Your task to perform on an android device: open a bookmark in the chrome app Image 0: 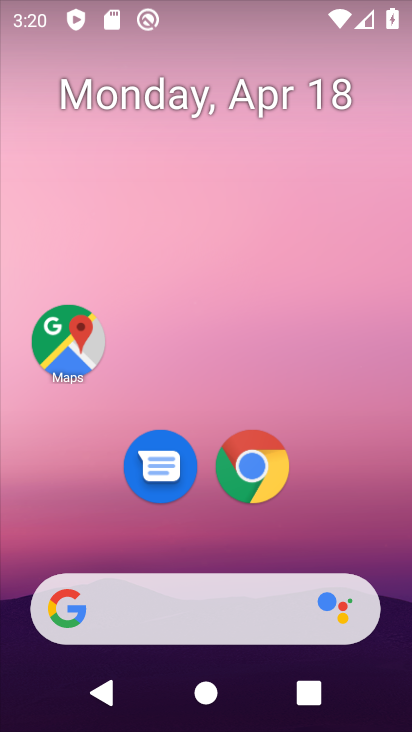
Step 0: click (254, 477)
Your task to perform on an android device: open a bookmark in the chrome app Image 1: 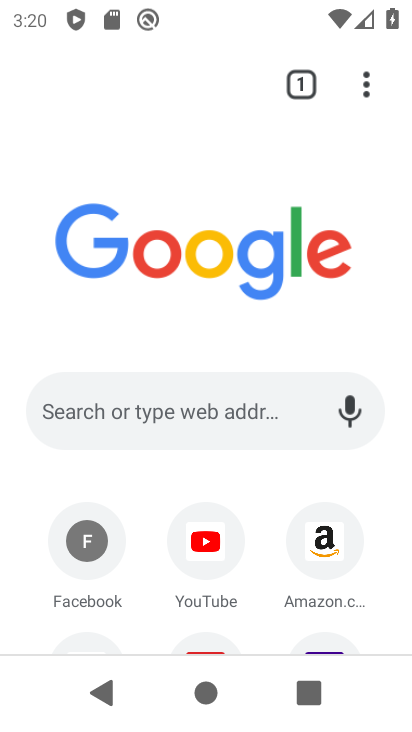
Step 1: click (369, 97)
Your task to perform on an android device: open a bookmark in the chrome app Image 2: 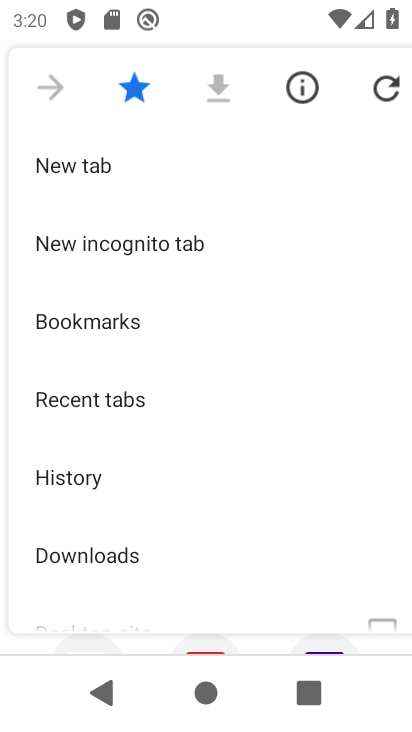
Step 2: click (168, 318)
Your task to perform on an android device: open a bookmark in the chrome app Image 3: 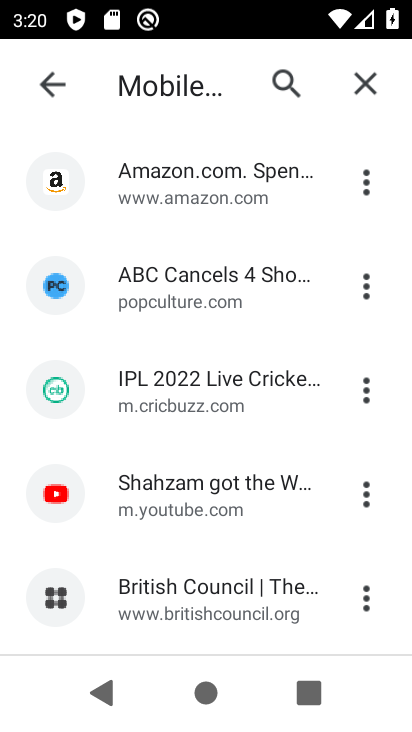
Step 3: click (206, 161)
Your task to perform on an android device: open a bookmark in the chrome app Image 4: 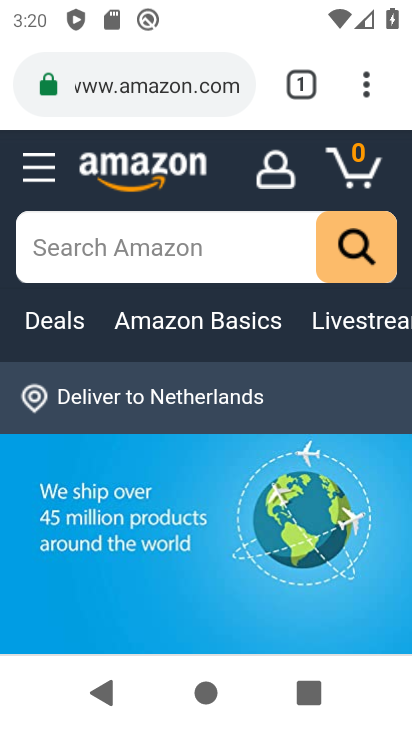
Step 4: task complete